Your task to perform on an android device: turn on improve location accuracy Image 0: 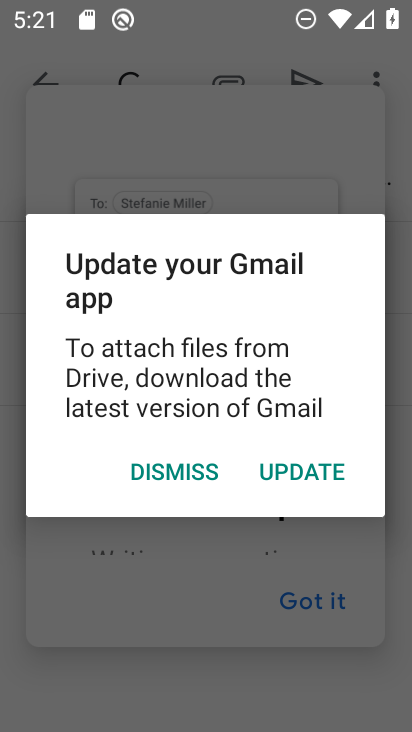
Step 0: press back button
Your task to perform on an android device: turn on improve location accuracy Image 1: 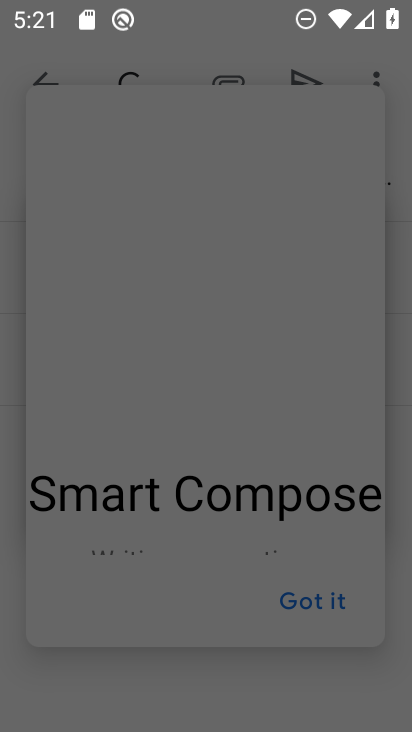
Step 1: press home button
Your task to perform on an android device: turn on improve location accuracy Image 2: 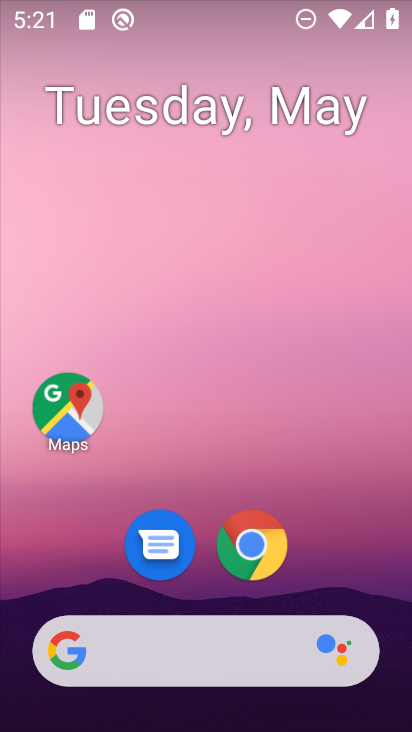
Step 2: drag from (339, 562) to (260, 44)
Your task to perform on an android device: turn on improve location accuracy Image 3: 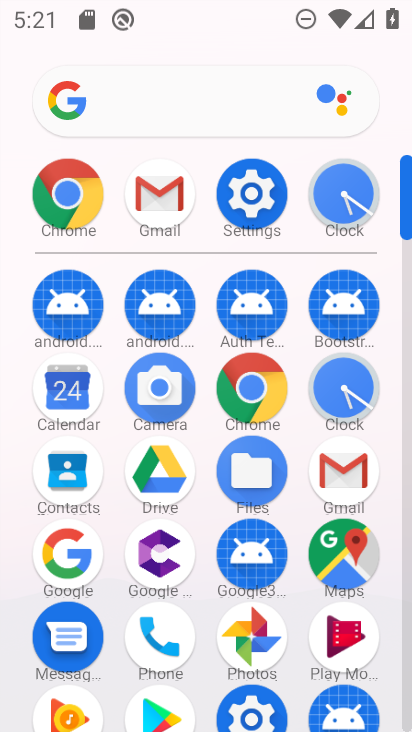
Step 3: drag from (16, 588) to (15, 193)
Your task to perform on an android device: turn on improve location accuracy Image 4: 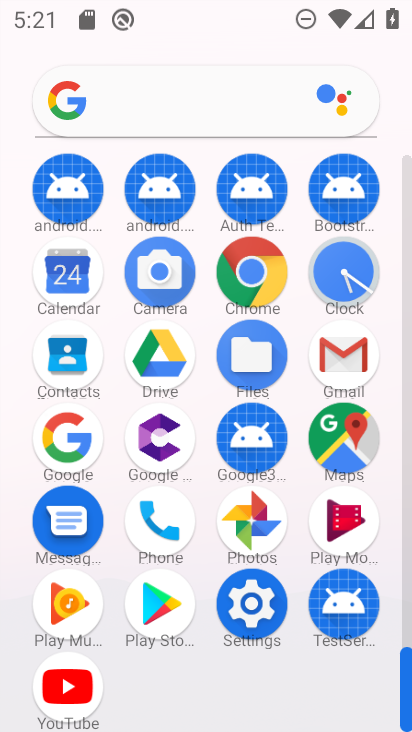
Step 4: click (251, 602)
Your task to perform on an android device: turn on improve location accuracy Image 5: 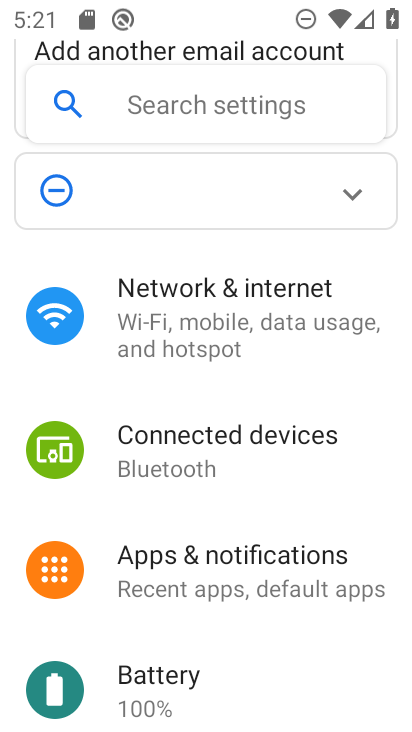
Step 5: drag from (325, 562) to (339, 200)
Your task to perform on an android device: turn on improve location accuracy Image 6: 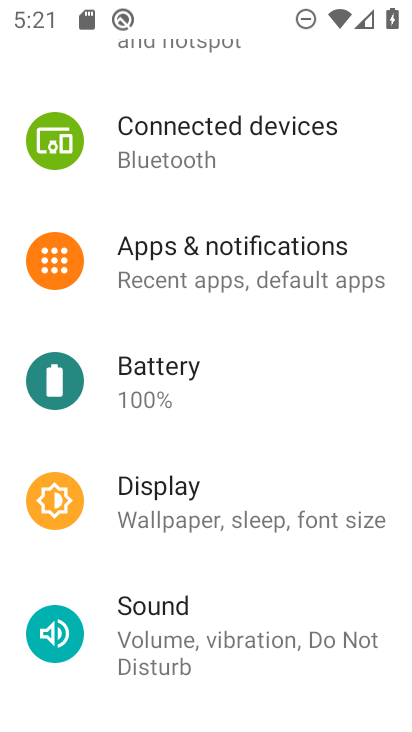
Step 6: drag from (346, 615) to (321, 144)
Your task to perform on an android device: turn on improve location accuracy Image 7: 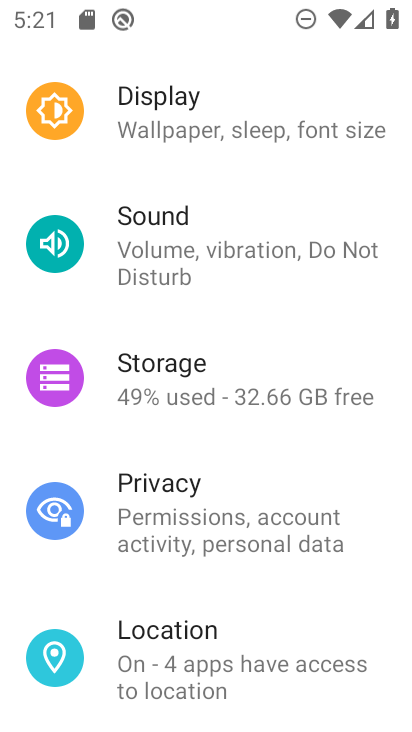
Step 7: drag from (296, 662) to (301, 175)
Your task to perform on an android device: turn on improve location accuracy Image 8: 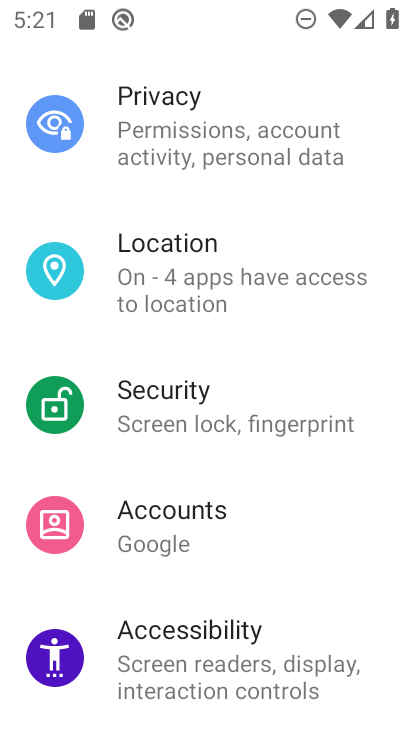
Step 8: drag from (301, 649) to (299, 220)
Your task to perform on an android device: turn on improve location accuracy Image 9: 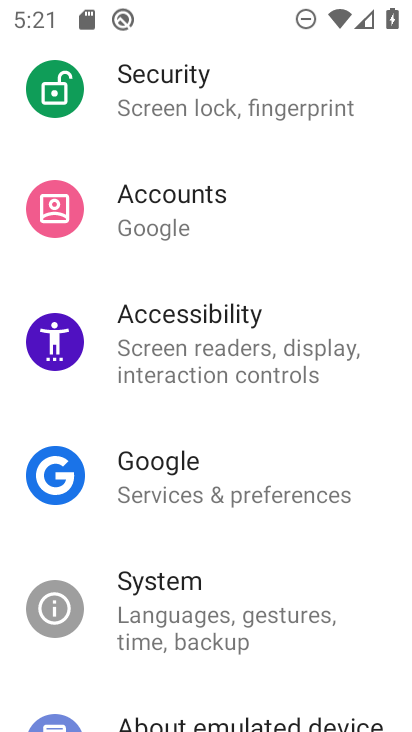
Step 9: drag from (303, 635) to (314, 221)
Your task to perform on an android device: turn on improve location accuracy Image 10: 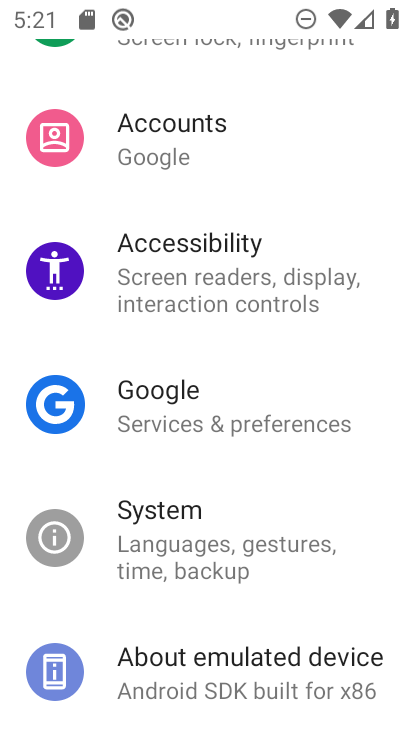
Step 10: drag from (329, 319) to (301, 661)
Your task to perform on an android device: turn on improve location accuracy Image 11: 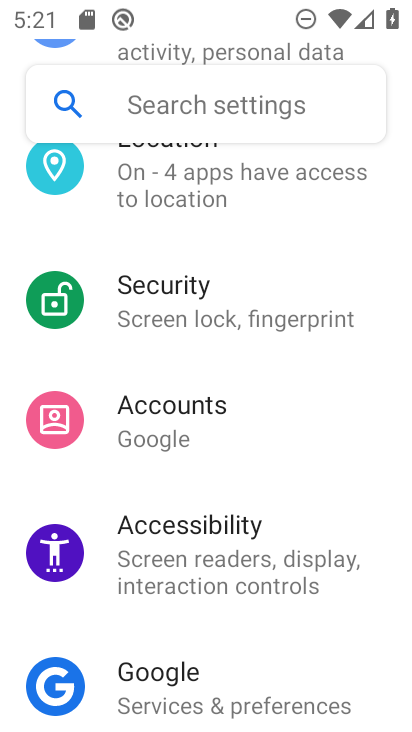
Step 11: drag from (293, 226) to (262, 690)
Your task to perform on an android device: turn on improve location accuracy Image 12: 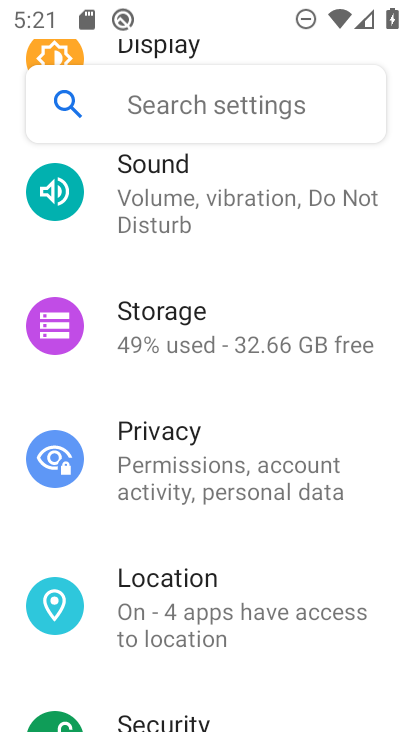
Step 12: drag from (283, 225) to (282, 663)
Your task to perform on an android device: turn on improve location accuracy Image 13: 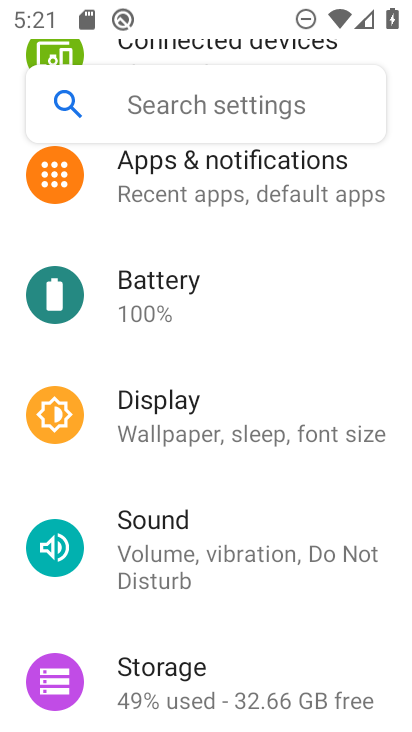
Step 13: drag from (271, 266) to (271, 647)
Your task to perform on an android device: turn on improve location accuracy Image 14: 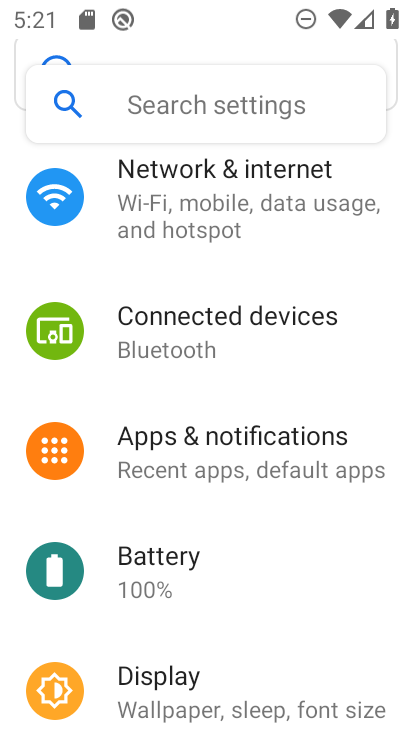
Step 14: drag from (276, 244) to (286, 665)
Your task to perform on an android device: turn on improve location accuracy Image 15: 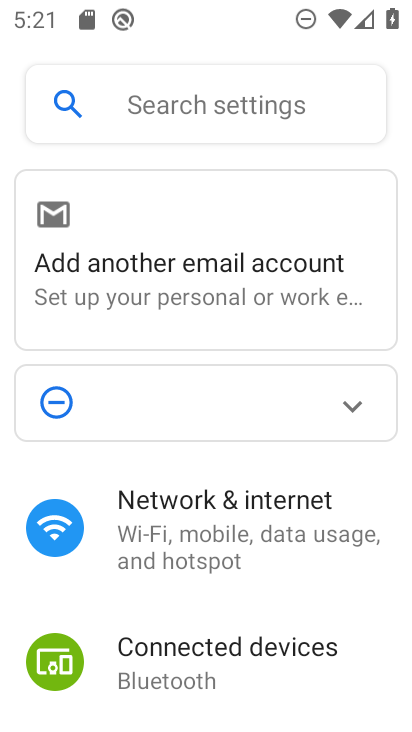
Step 15: drag from (267, 530) to (269, 157)
Your task to perform on an android device: turn on improve location accuracy Image 16: 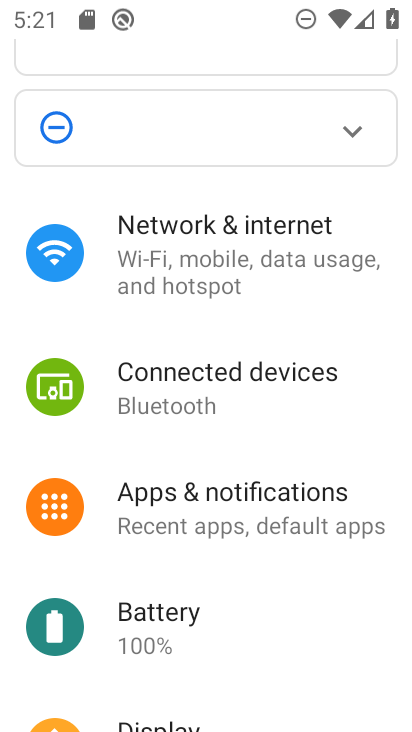
Step 16: drag from (287, 585) to (325, 199)
Your task to perform on an android device: turn on improve location accuracy Image 17: 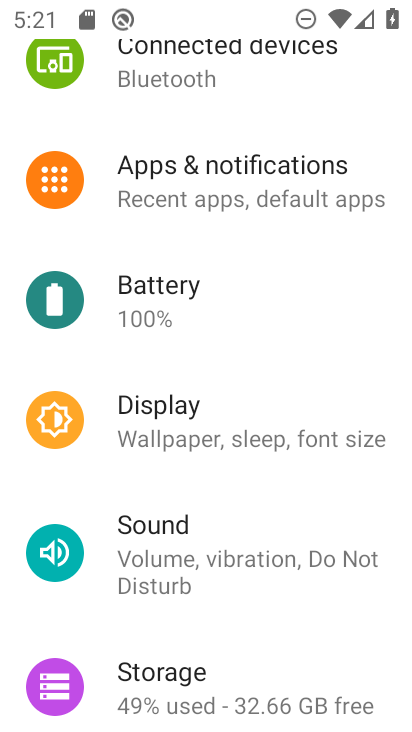
Step 17: drag from (291, 683) to (258, 190)
Your task to perform on an android device: turn on improve location accuracy Image 18: 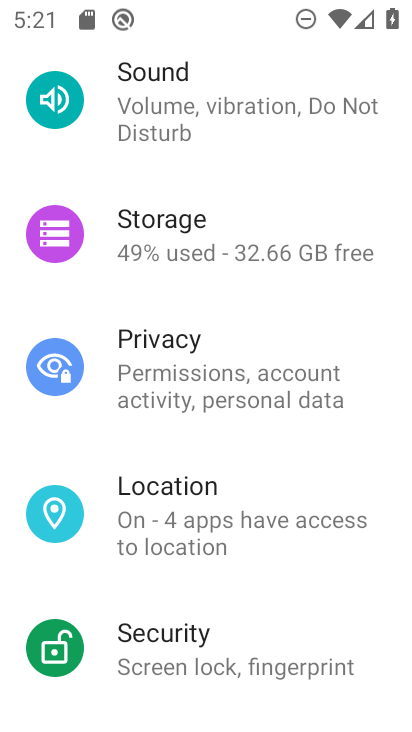
Step 18: click (211, 525)
Your task to perform on an android device: turn on improve location accuracy Image 19: 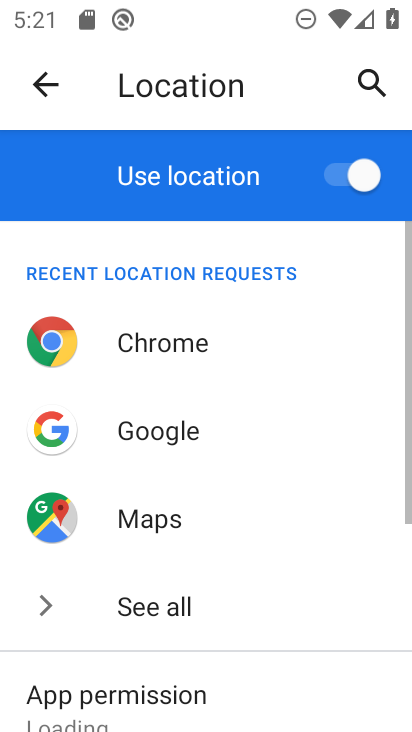
Step 19: drag from (269, 606) to (309, 163)
Your task to perform on an android device: turn on improve location accuracy Image 20: 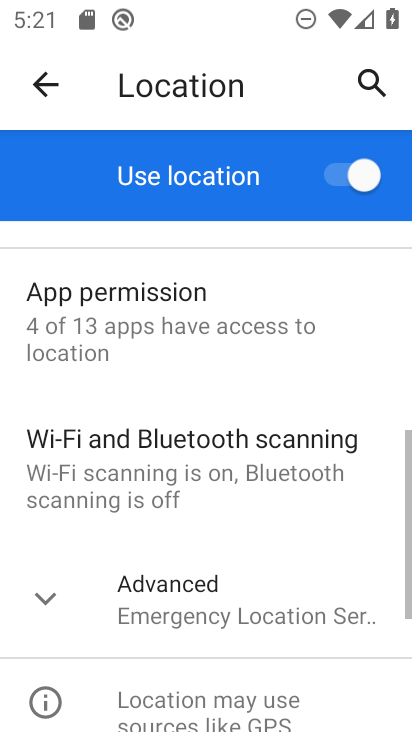
Step 20: click (84, 593)
Your task to perform on an android device: turn on improve location accuracy Image 21: 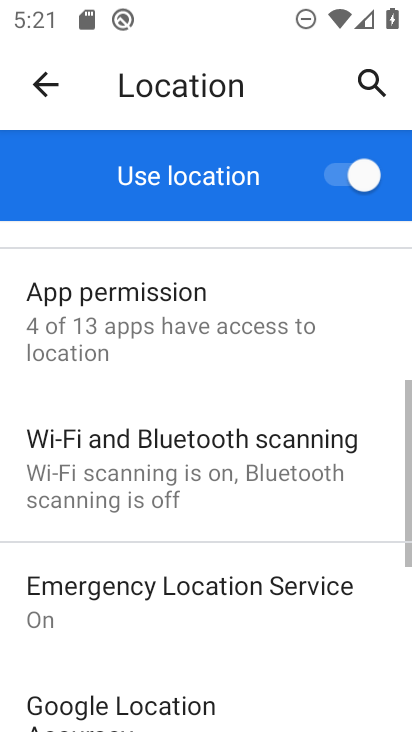
Step 21: drag from (277, 601) to (286, 260)
Your task to perform on an android device: turn on improve location accuracy Image 22: 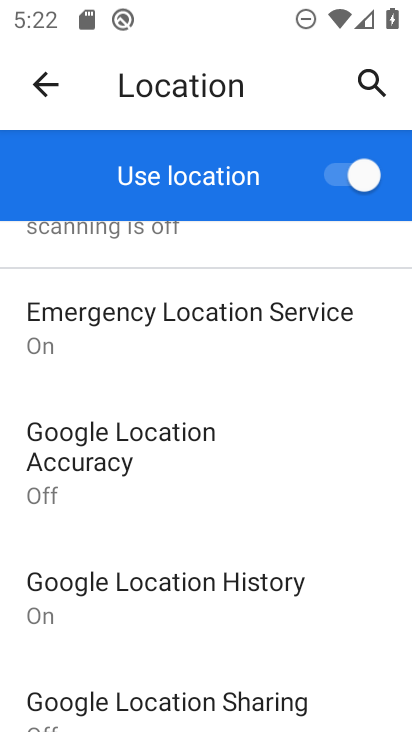
Step 22: drag from (233, 684) to (290, 356)
Your task to perform on an android device: turn on improve location accuracy Image 23: 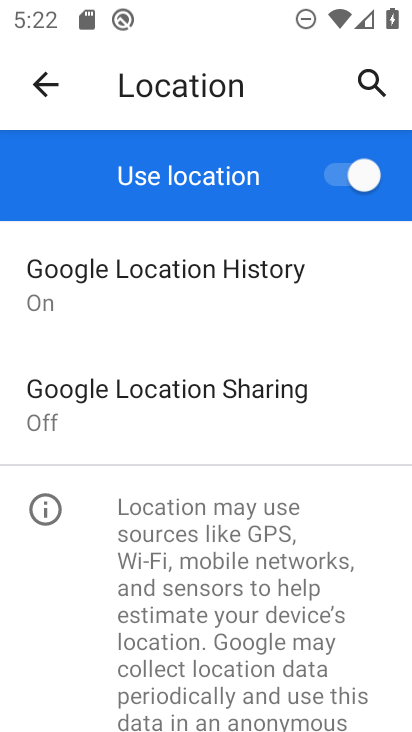
Step 23: drag from (329, 311) to (333, 700)
Your task to perform on an android device: turn on improve location accuracy Image 24: 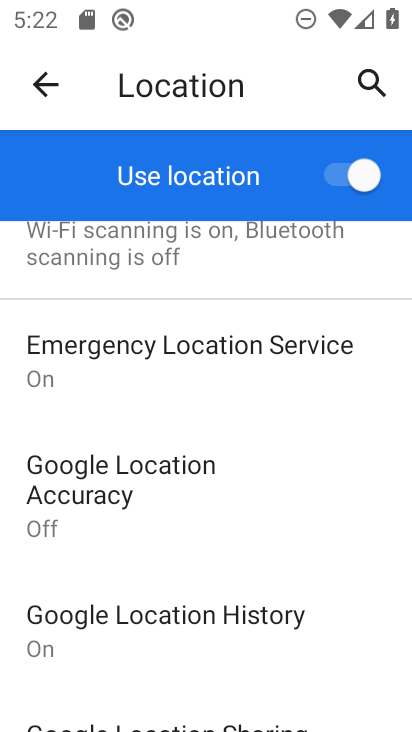
Step 24: click (155, 490)
Your task to perform on an android device: turn on improve location accuracy Image 25: 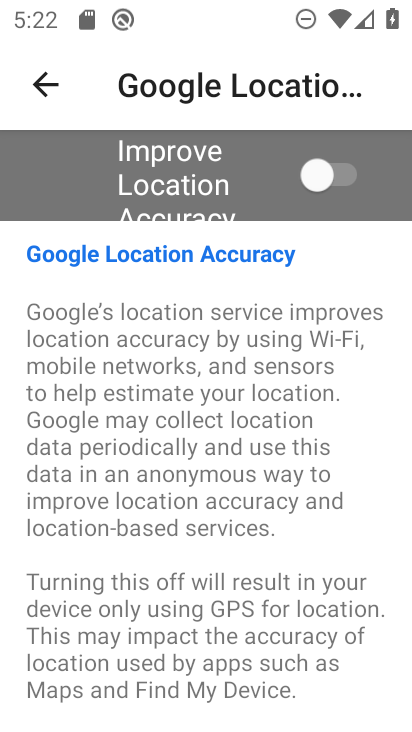
Step 25: click (348, 156)
Your task to perform on an android device: turn on improve location accuracy Image 26: 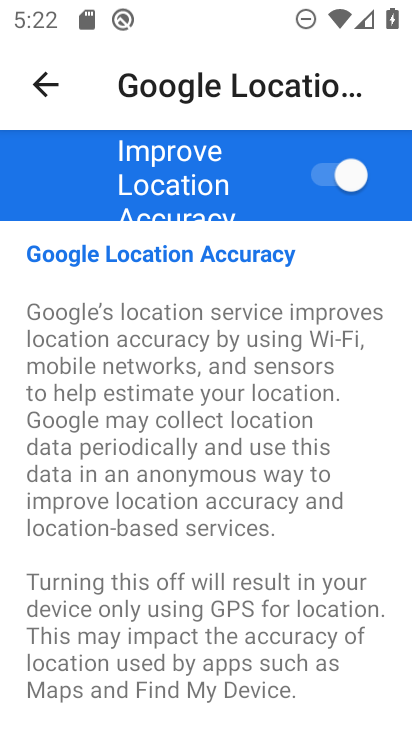
Step 26: task complete